Your task to perform on an android device: check out phone information Image 0: 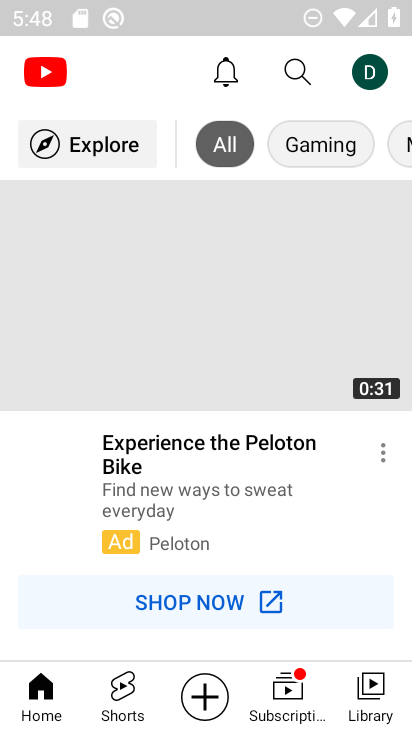
Step 0: press home button
Your task to perform on an android device: check out phone information Image 1: 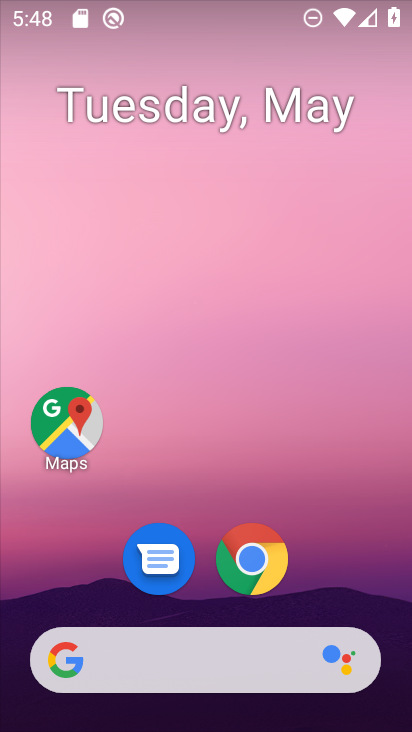
Step 1: drag from (302, 599) to (308, 310)
Your task to perform on an android device: check out phone information Image 2: 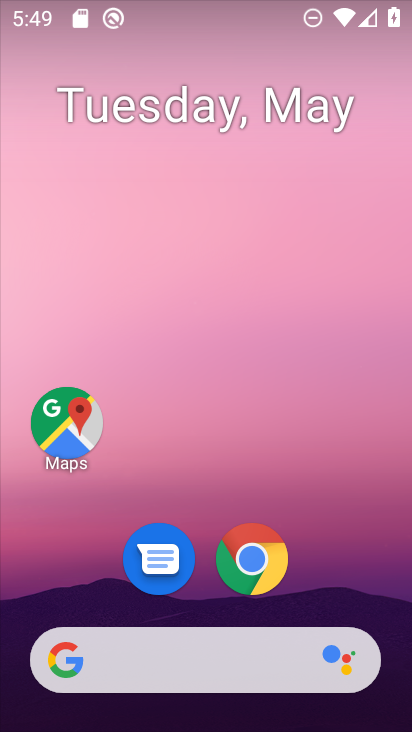
Step 2: drag from (202, 613) to (225, 184)
Your task to perform on an android device: check out phone information Image 3: 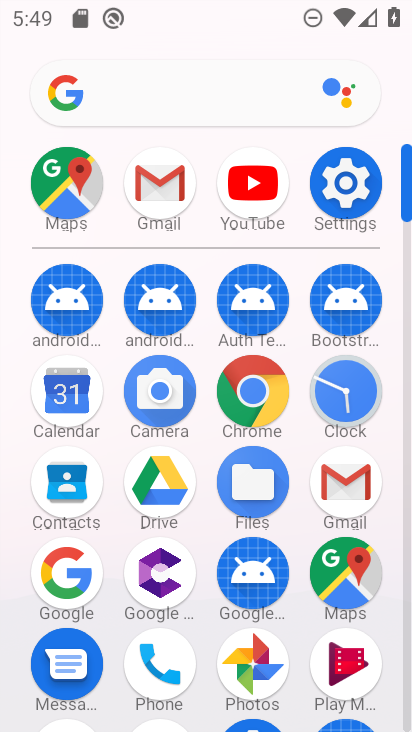
Step 3: click (345, 179)
Your task to perform on an android device: check out phone information Image 4: 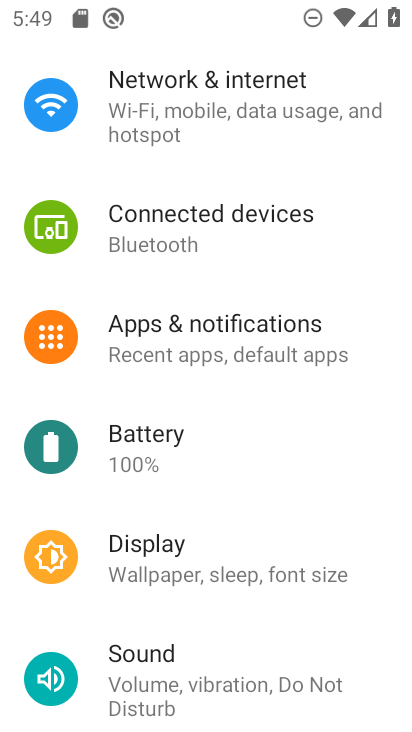
Step 4: drag from (239, 644) to (255, 251)
Your task to perform on an android device: check out phone information Image 5: 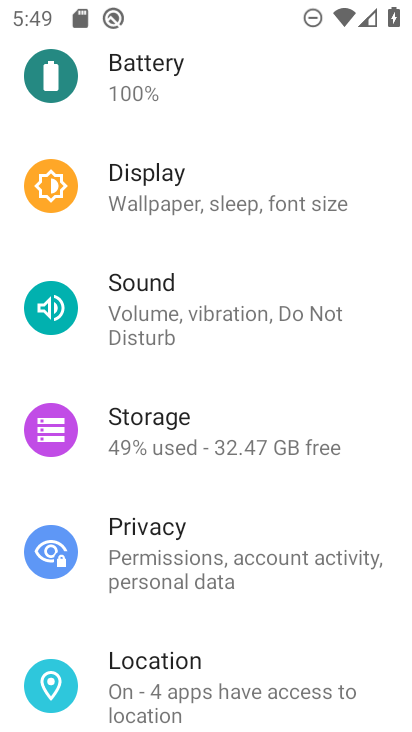
Step 5: drag from (237, 460) to (251, 233)
Your task to perform on an android device: check out phone information Image 6: 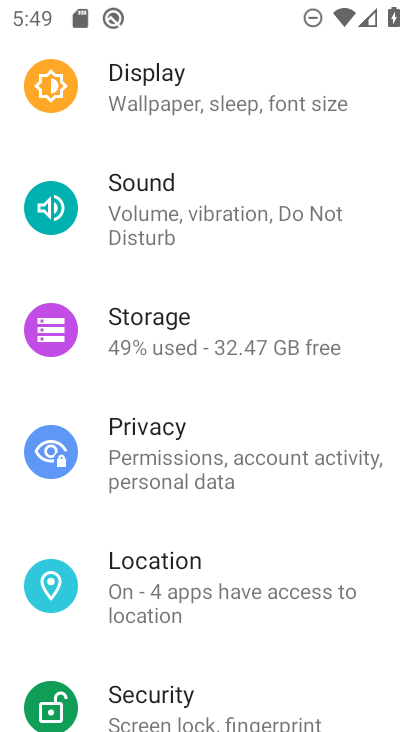
Step 6: drag from (188, 633) to (247, 201)
Your task to perform on an android device: check out phone information Image 7: 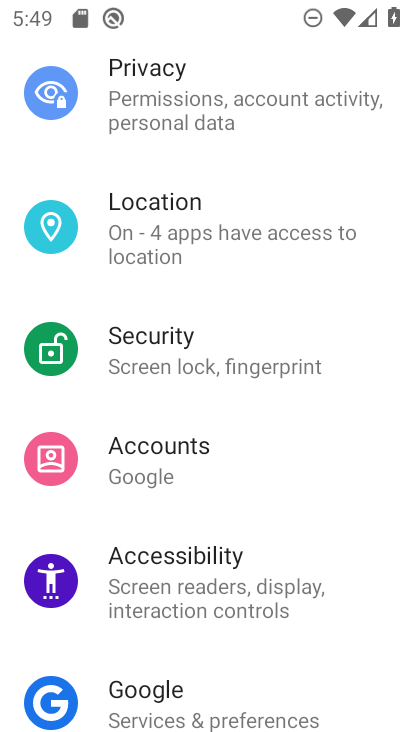
Step 7: drag from (170, 695) to (194, 307)
Your task to perform on an android device: check out phone information Image 8: 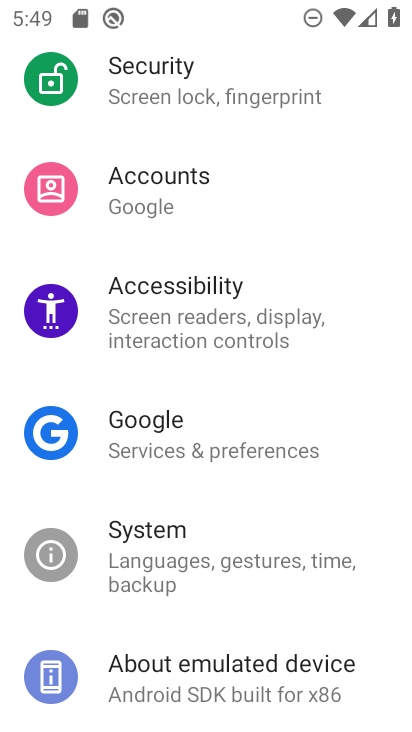
Step 8: click (188, 663)
Your task to perform on an android device: check out phone information Image 9: 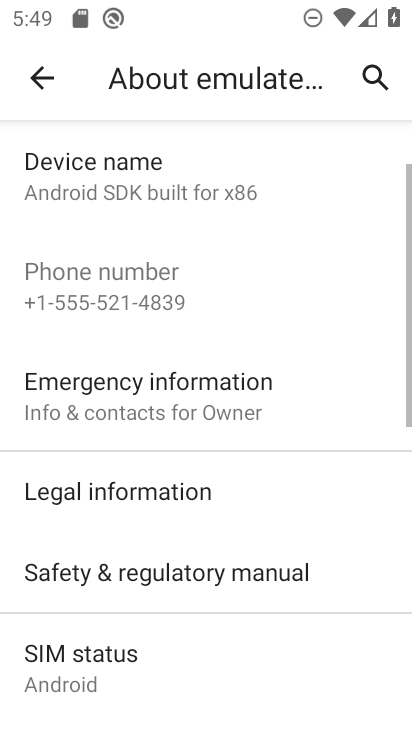
Step 9: task complete